Your task to perform on an android device: turn off airplane mode Image 0: 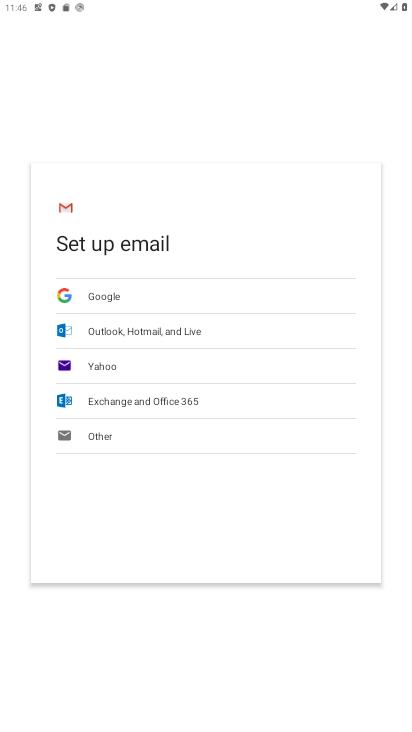
Step 0: press home button
Your task to perform on an android device: turn off airplane mode Image 1: 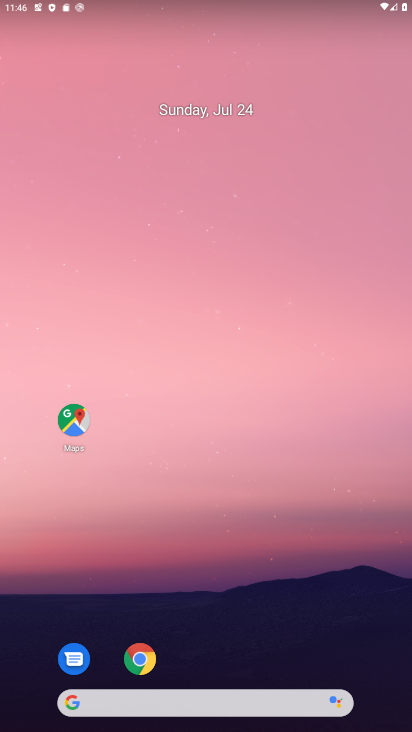
Step 1: drag from (36, 693) to (253, 358)
Your task to perform on an android device: turn off airplane mode Image 2: 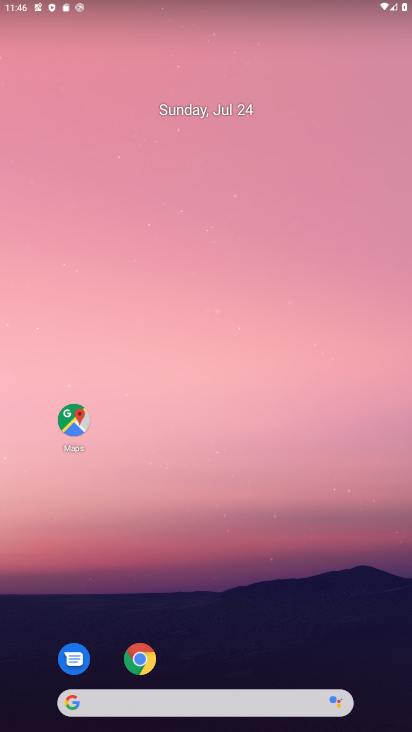
Step 2: drag from (34, 694) to (198, 296)
Your task to perform on an android device: turn off airplane mode Image 3: 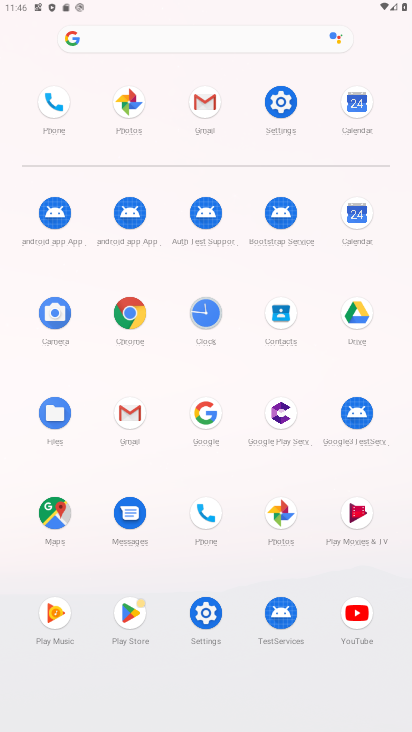
Step 3: click (198, 627)
Your task to perform on an android device: turn off airplane mode Image 4: 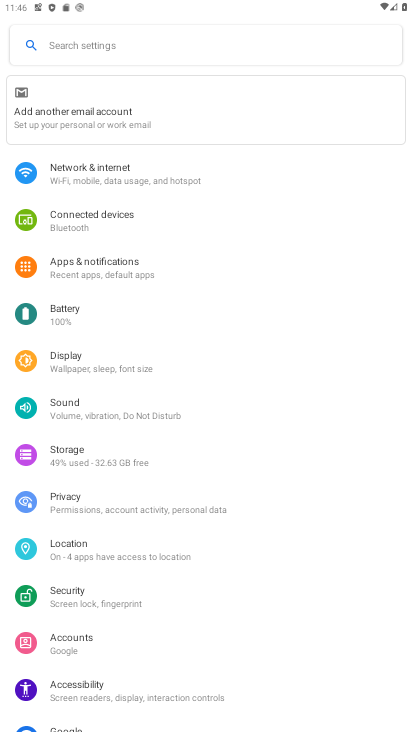
Step 4: click (97, 184)
Your task to perform on an android device: turn off airplane mode Image 5: 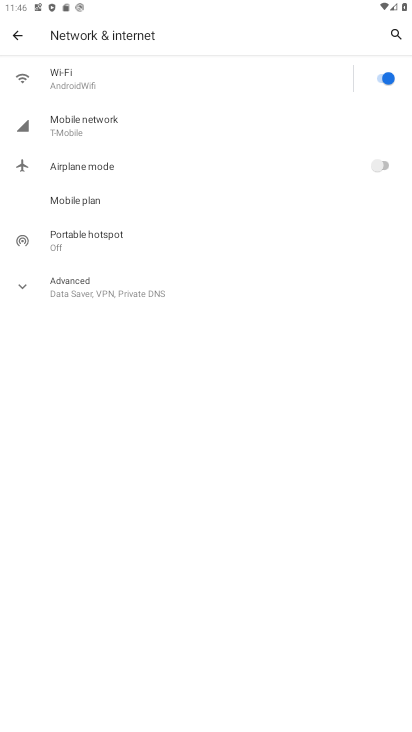
Step 5: task complete